Your task to perform on an android device: snooze an email in the gmail app Image 0: 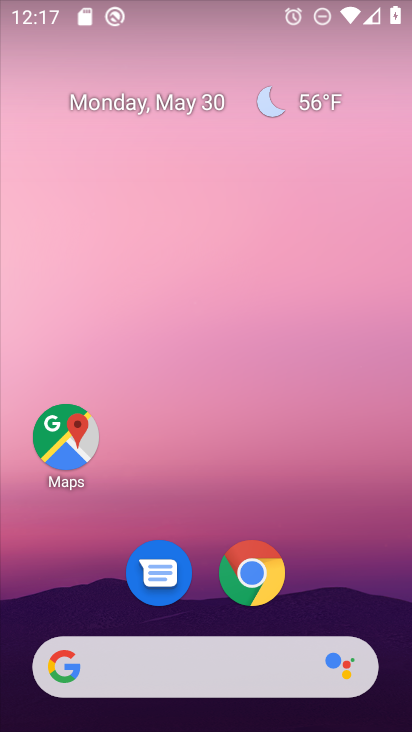
Step 0: drag from (233, 647) to (359, 6)
Your task to perform on an android device: snooze an email in the gmail app Image 1: 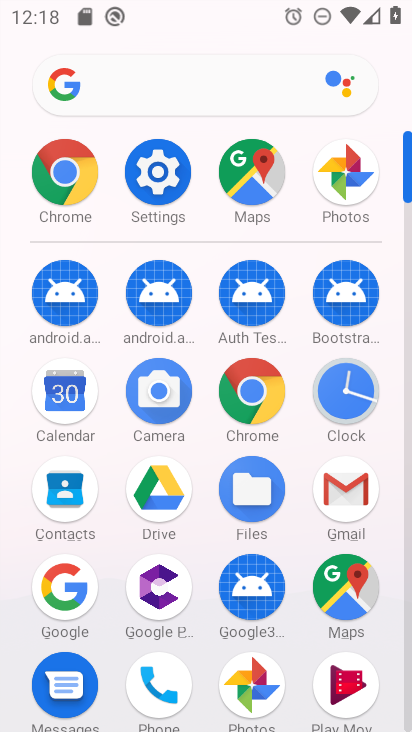
Step 1: click (349, 488)
Your task to perform on an android device: snooze an email in the gmail app Image 2: 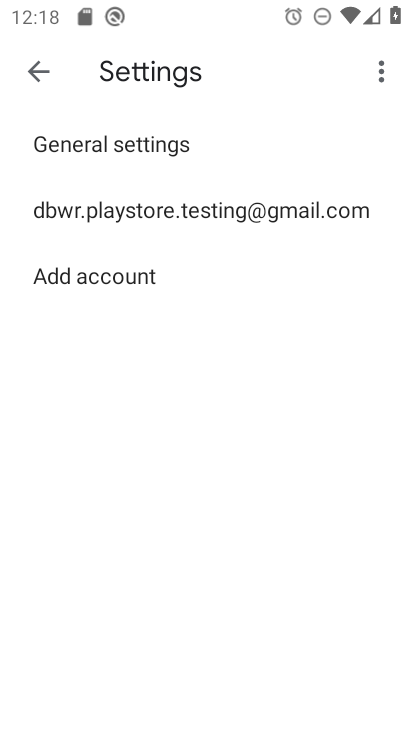
Step 2: press back button
Your task to perform on an android device: snooze an email in the gmail app Image 3: 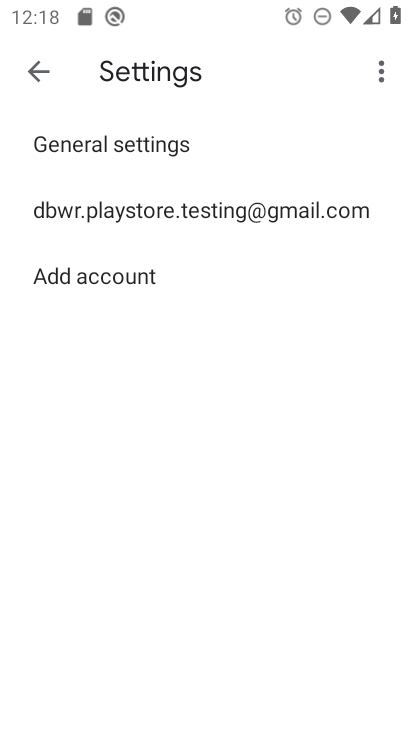
Step 3: click (298, 215)
Your task to perform on an android device: snooze an email in the gmail app Image 4: 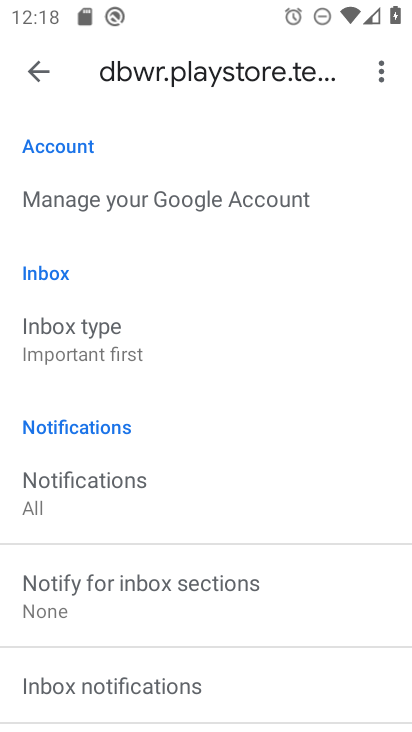
Step 4: press back button
Your task to perform on an android device: snooze an email in the gmail app Image 5: 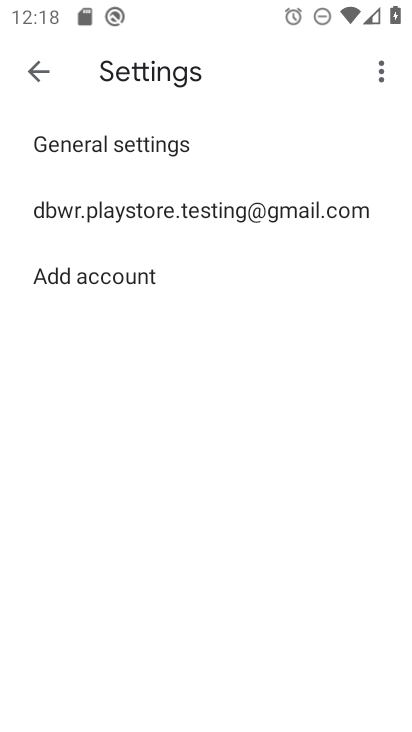
Step 5: press back button
Your task to perform on an android device: snooze an email in the gmail app Image 6: 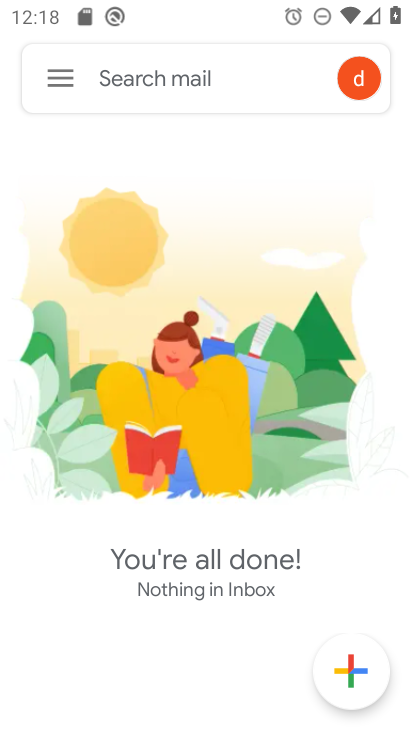
Step 6: click (52, 75)
Your task to perform on an android device: snooze an email in the gmail app Image 7: 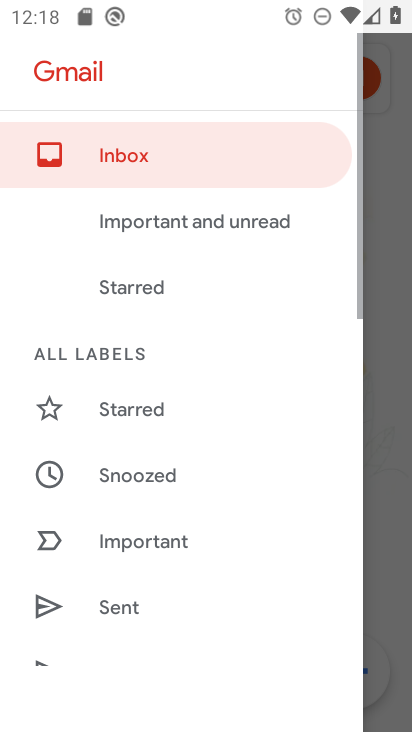
Step 7: click (170, 477)
Your task to perform on an android device: snooze an email in the gmail app Image 8: 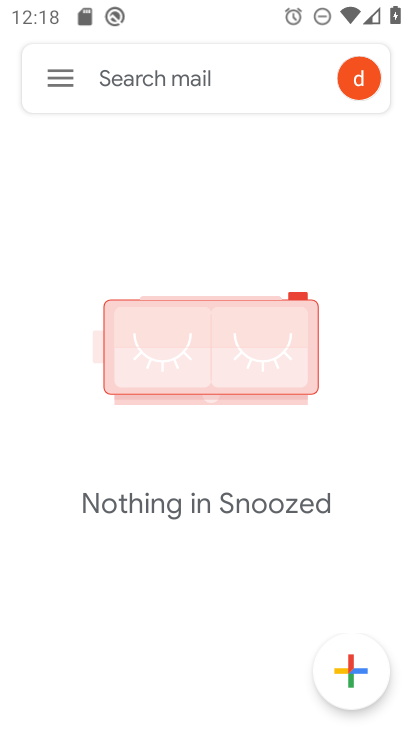
Step 8: task complete